Your task to perform on an android device: Open a new tab in the chrome app Image 0: 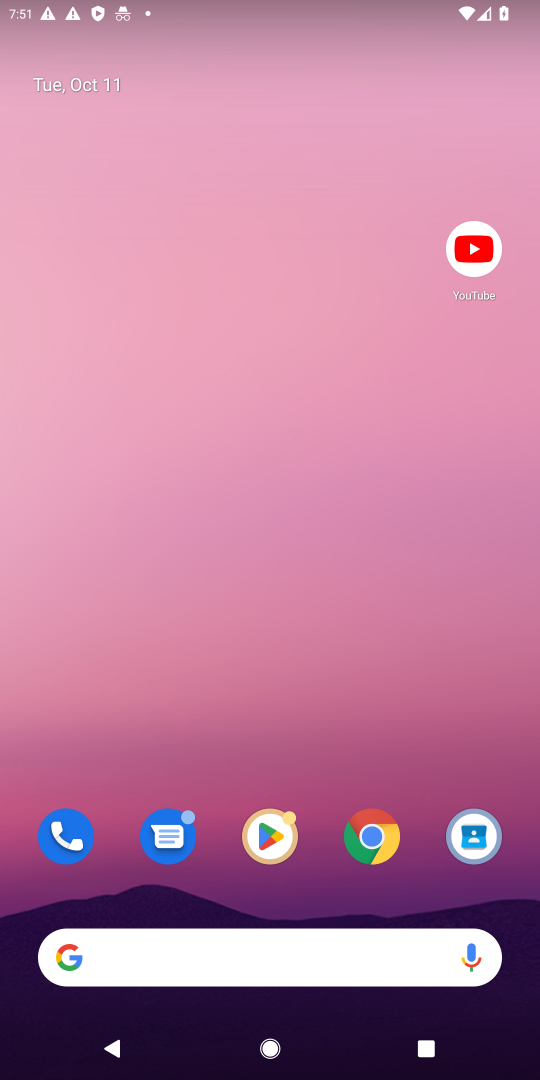
Step 0: click (367, 841)
Your task to perform on an android device: Open a new tab in the chrome app Image 1: 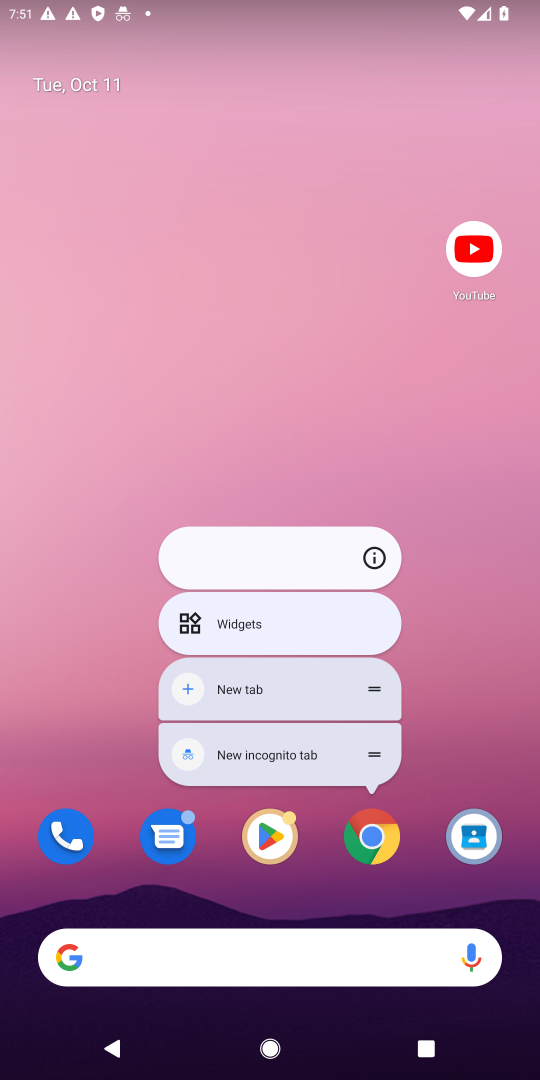
Step 1: click (367, 842)
Your task to perform on an android device: Open a new tab in the chrome app Image 2: 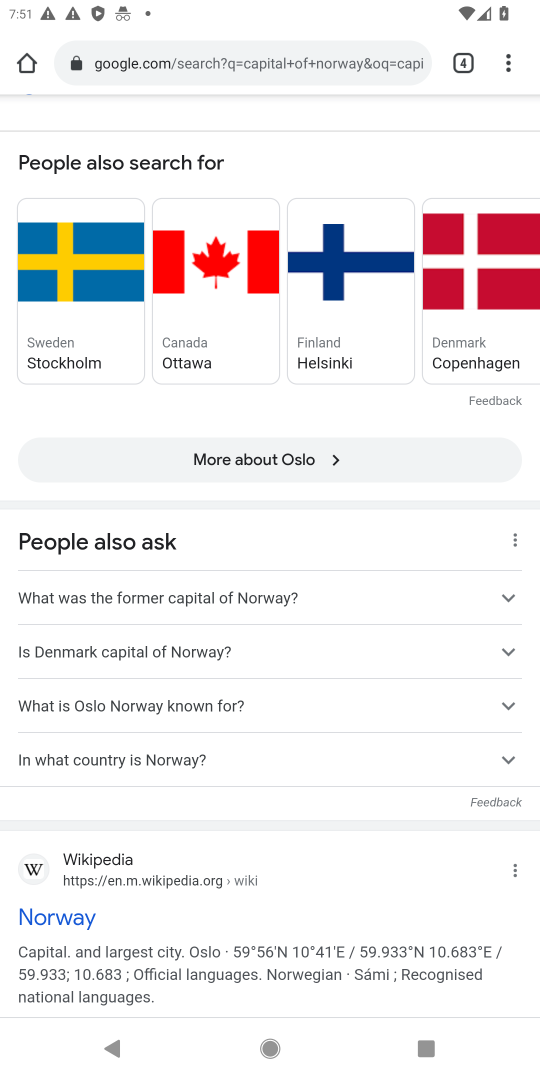
Step 2: click (329, 61)
Your task to perform on an android device: Open a new tab in the chrome app Image 3: 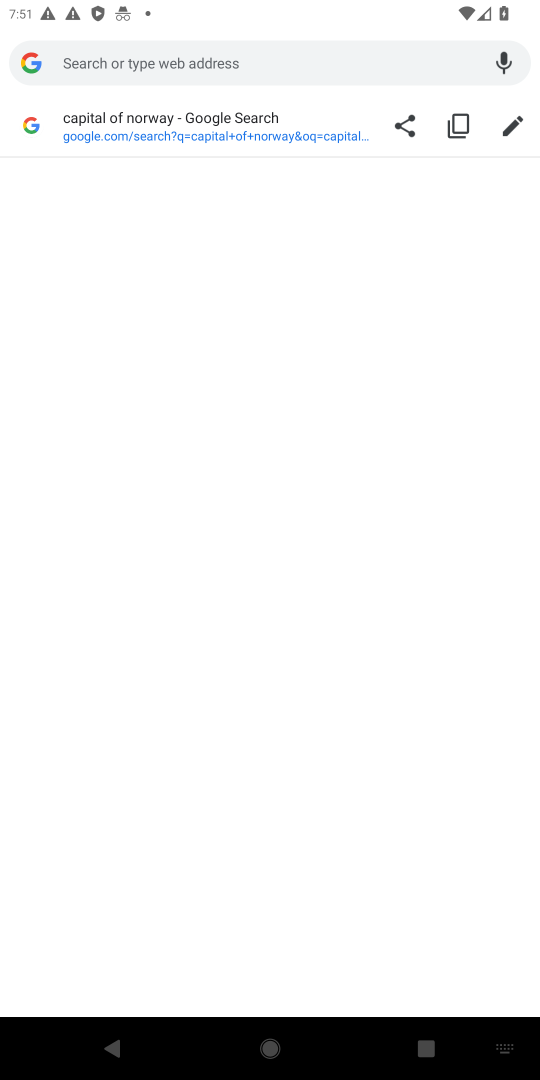
Step 3: click (134, 62)
Your task to perform on an android device: Open a new tab in the chrome app Image 4: 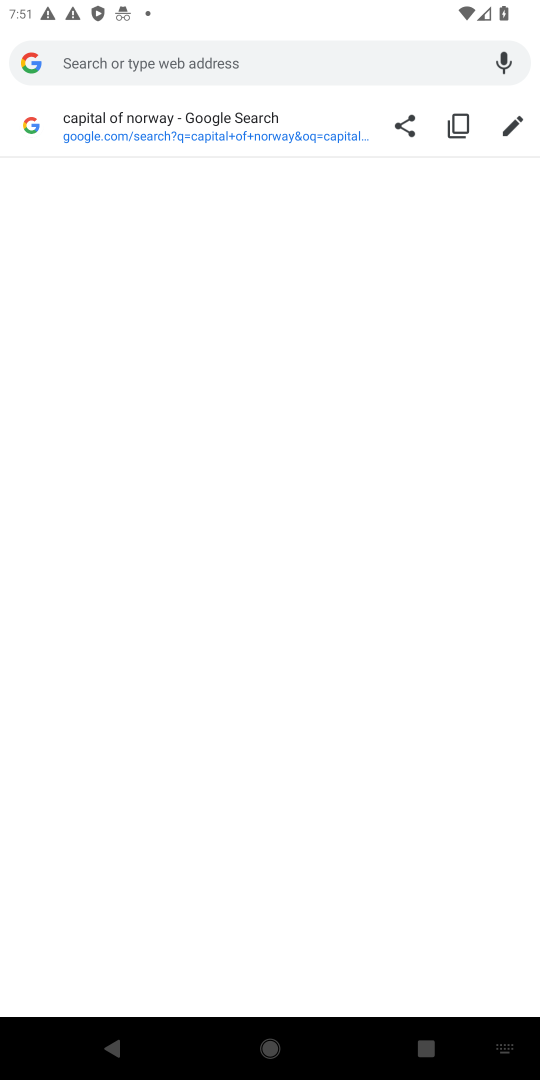
Step 4: task complete